Your task to perform on an android device: open app "Life360: Find Family & Friends" Image 0: 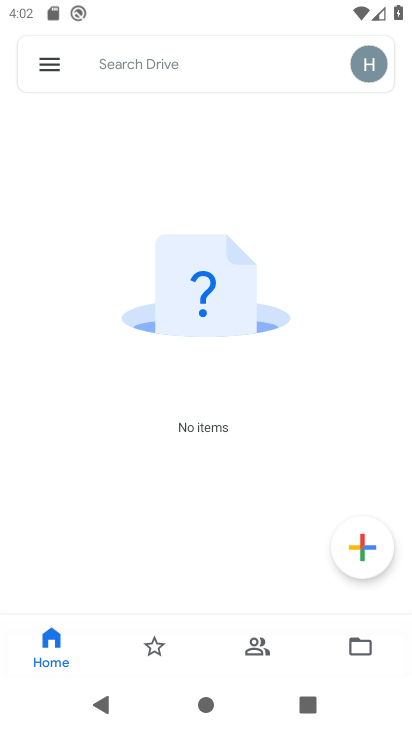
Step 0: press home button
Your task to perform on an android device: open app "Life360: Find Family & Friends" Image 1: 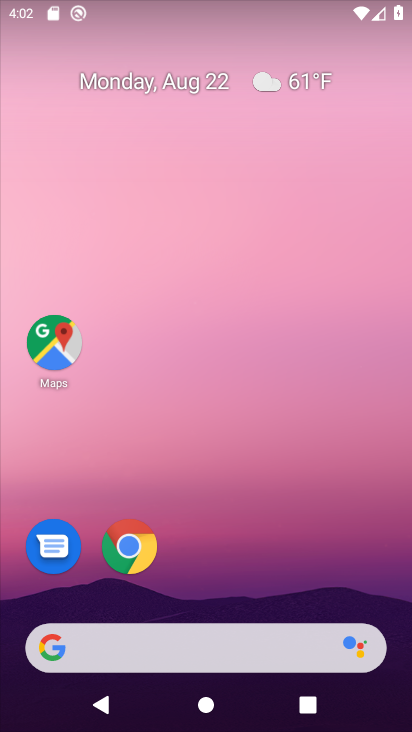
Step 1: drag from (372, 599) to (347, 60)
Your task to perform on an android device: open app "Life360: Find Family & Friends" Image 2: 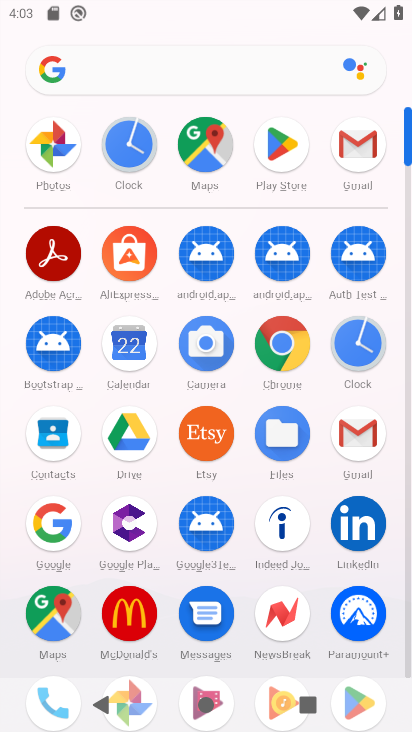
Step 2: drag from (320, 551) to (321, 342)
Your task to perform on an android device: open app "Life360: Find Family & Friends" Image 3: 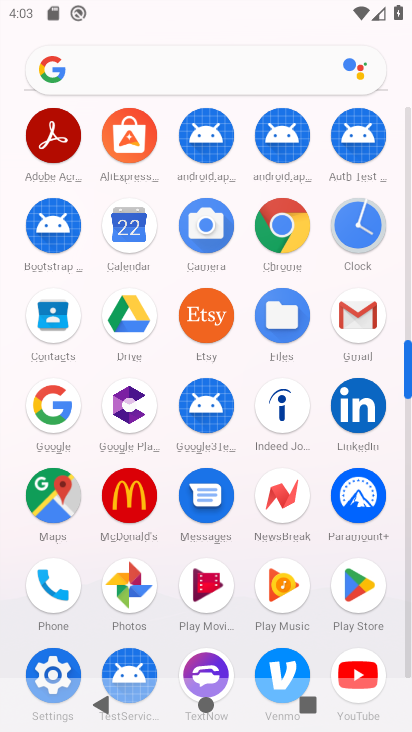
Step 3: click (362, 588)
Your task to perform on an android device: open app "Life360: Find Family & Friends" Image 4: 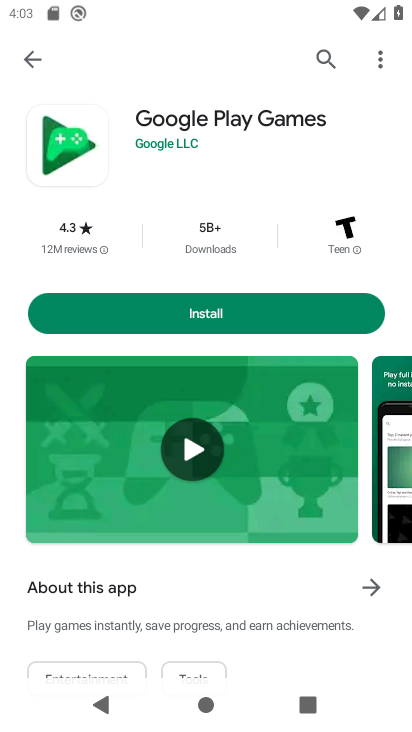
Step 4: click (320, 52)
Your task to perform on an android device: open app "Life360: Find Family & Friends" Image 5: 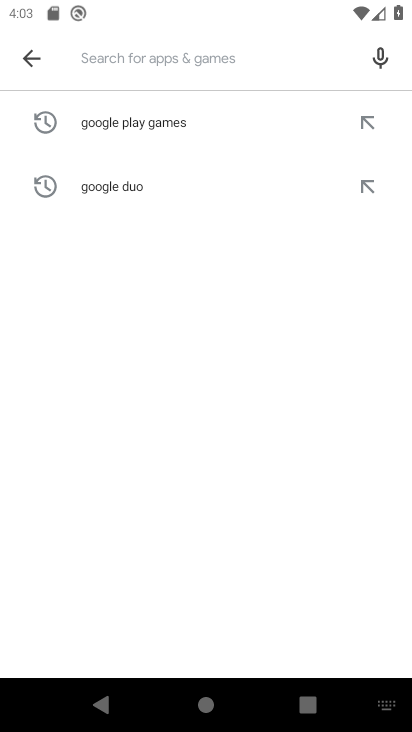
Step 5: type "Life360: Find Family & Friends"
Your task to perform on an android device: open app "Life360: Find Family & Friends" Image 6: 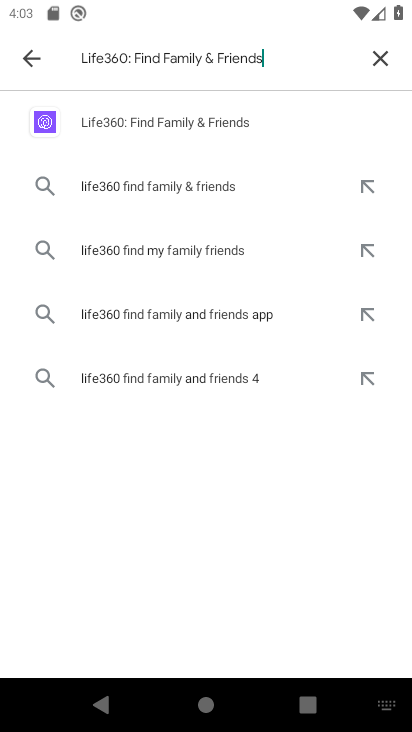
Step 6: click (156, 115)
Your task to perform on an android device: open app "Life360: Find Family & Friends" Image 7: 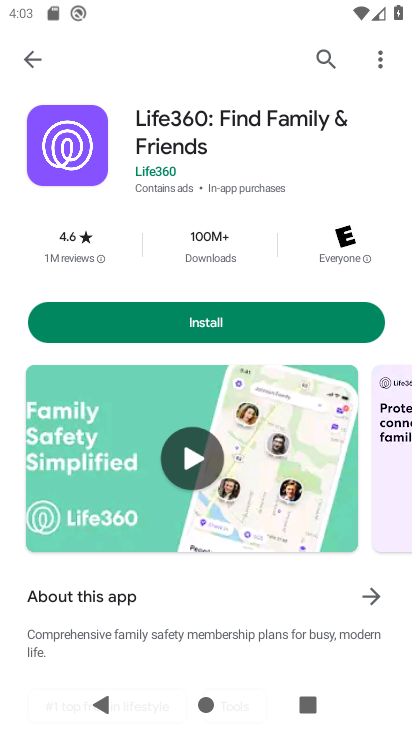
Step 7: task complete